Your task to perform on an android device: Open sound settings Image 0: 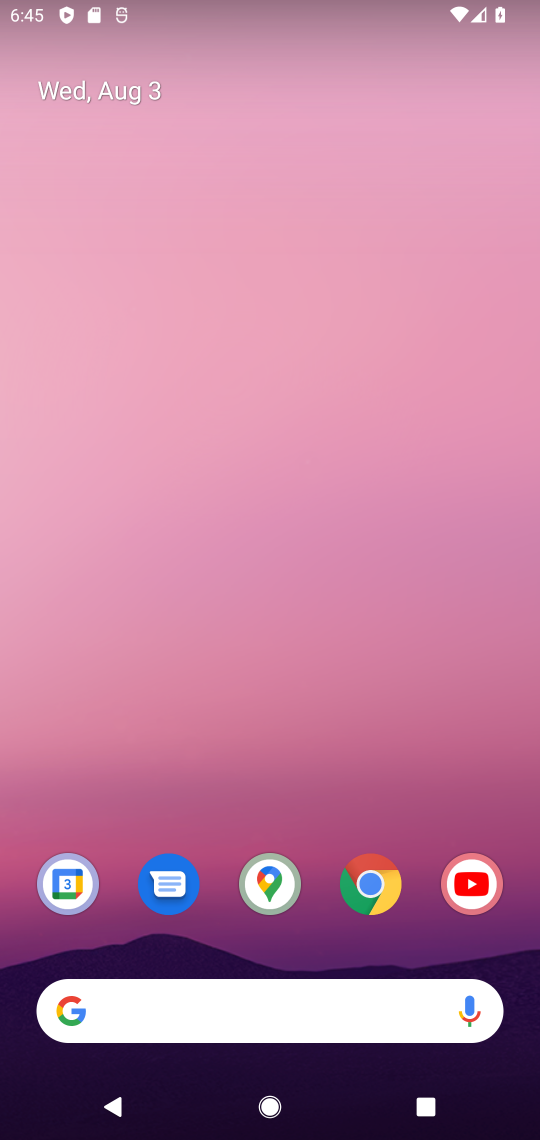
Step 0: drag from (459, 623) to (397, 44)
Your task to perform on an android device: Open sound settings Image 1: 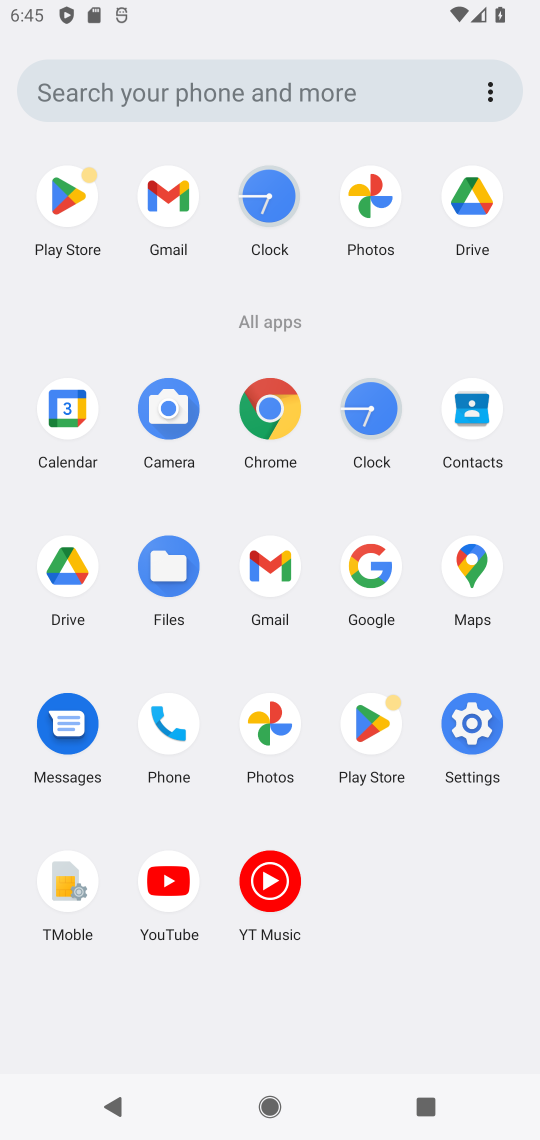
Step 1: click (470, 724)
Your task to perform on an android device: Open sound settings Image 2: 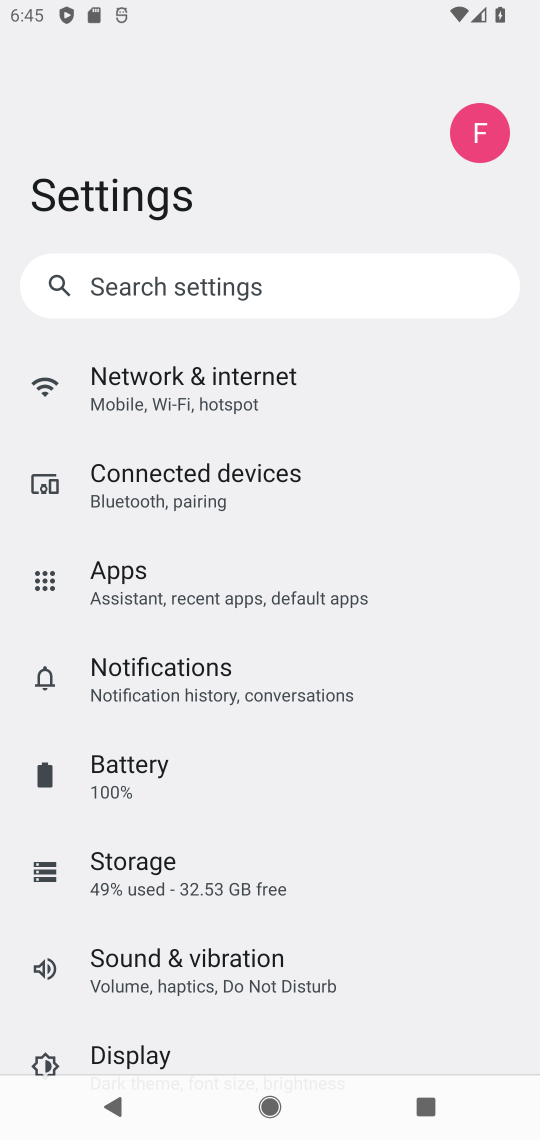
Step 2: click (213, 974)
Your task to perform on an android device: Open sound settings Image 3: 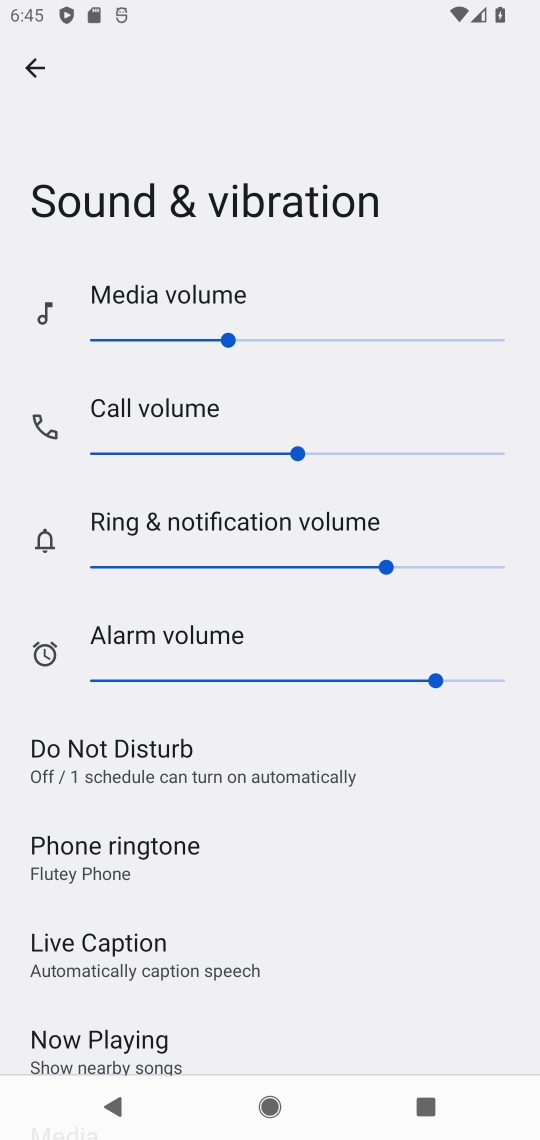
Step 3: task complete